Your task to perform on an android device: turn on notifications settings in the gmail app Image 0: 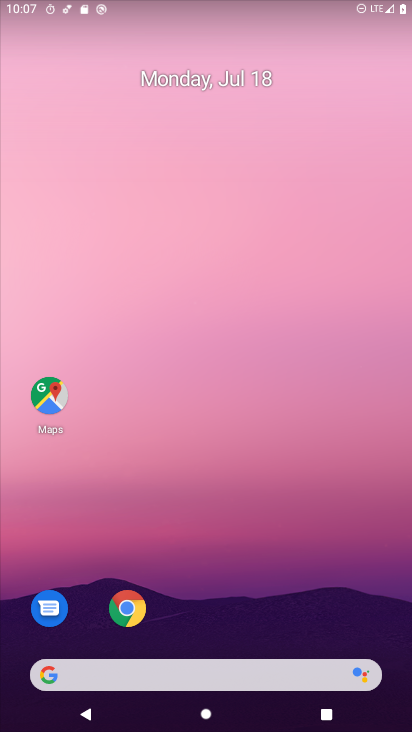
Step 0: drag from (175, 630) to (182, 245)
Your task to perform on an android device: turn on notifications settings in the gmail app Image 1: 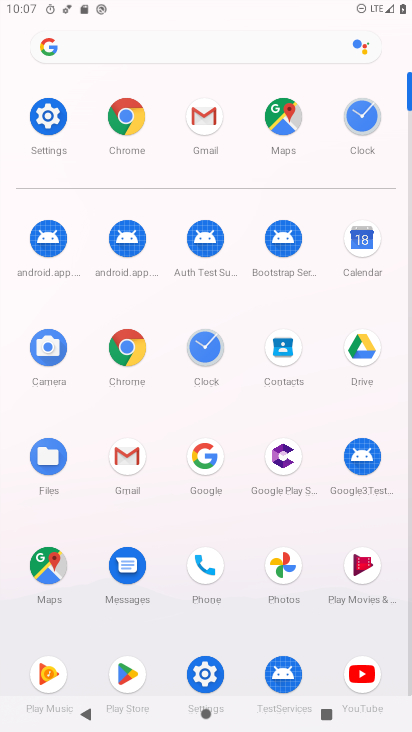
Step 1: click (207, 140)
Your task to perform on an android device: turn on notifications settings in the gmail app Image 2: 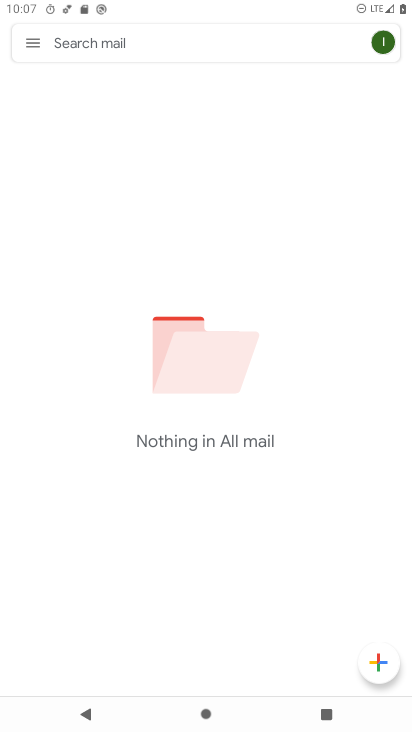
Step 2: click (28, 45)
Your task to perform on an android device: turn on notifications settings in the gmail app Image 3: 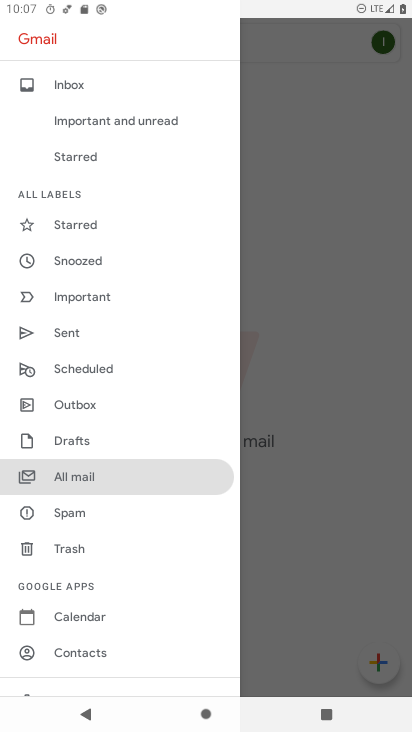
Step 3: drag from (87, 602) to (101, 424)
Your task to perform on an android device: turn on notifications settings in the gmail app Image 4: 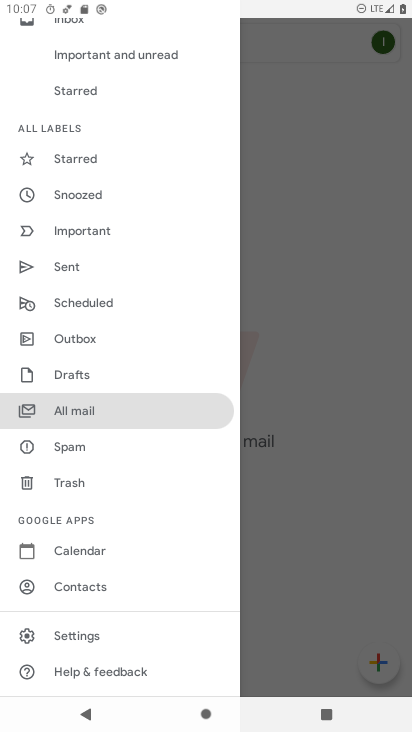
Step 4: click (70, 629)
Your task to perform on an android device: turn on notifications settings in the gmail app Image 5: 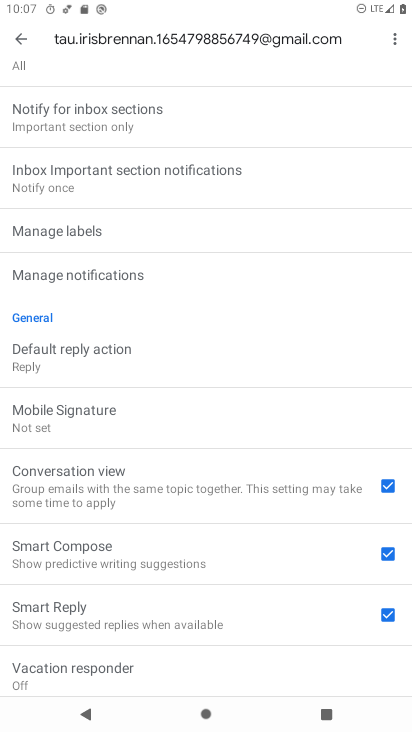
Step 5: click (34, 278)
Your task to perform on an android device: turn on notifications settings in the gmail app Image 6: 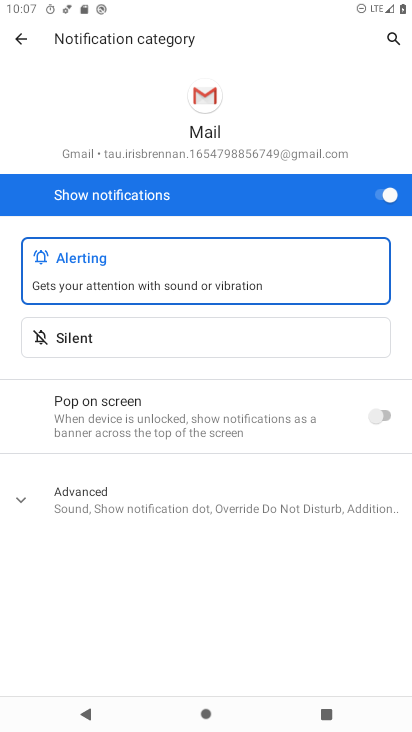
Step 6: task complete